Your task to perform on an android device: Open settings Image 0: 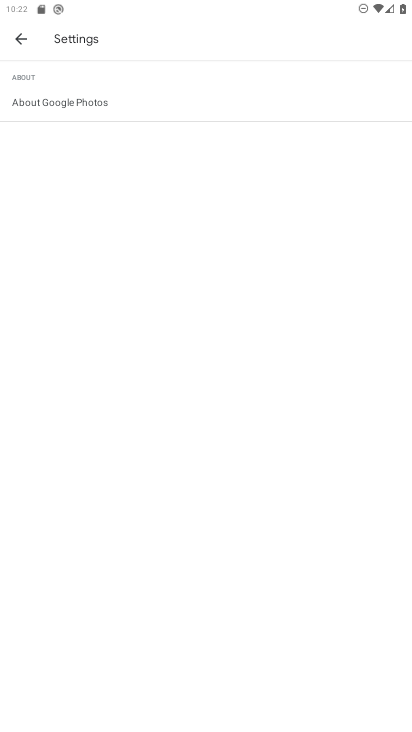
Step 0: press back button
Your task to perform on an android device: Open settings Image 1: 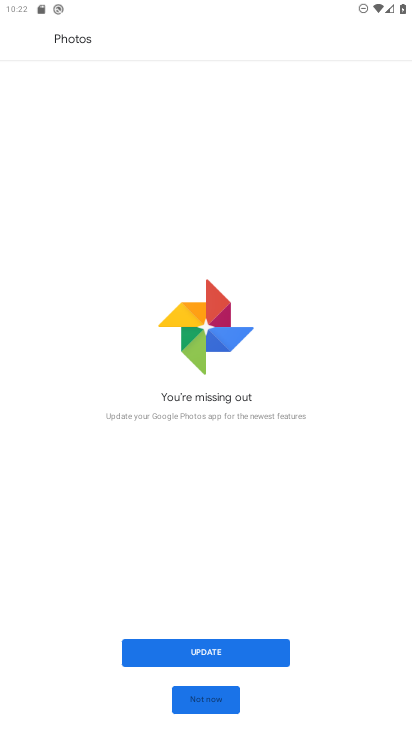
Step 1: press home button
Your task to perform on an android device: Open settings Image 2: 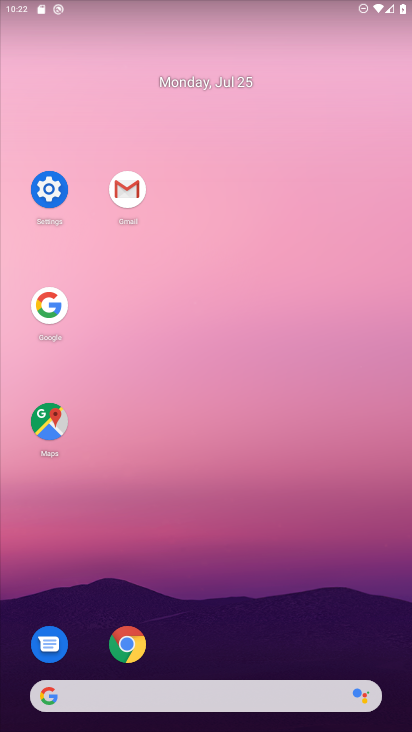
Step 2: click (56, 203)
Your task to perform on an android device: Open settings Image 3: 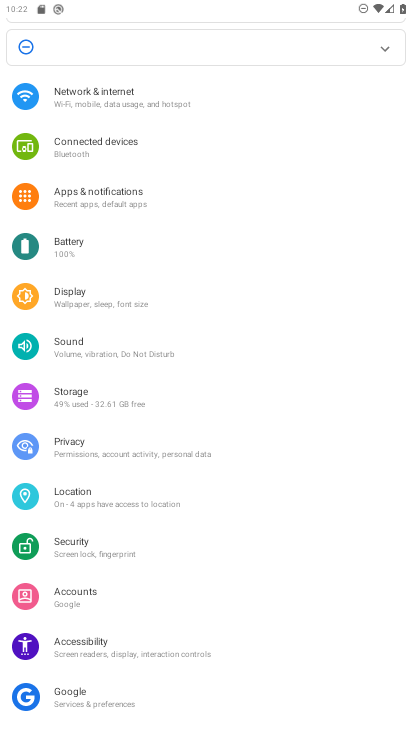
Step 3: task complete